Your task to perform on an android device: Open internet settings Image 0: 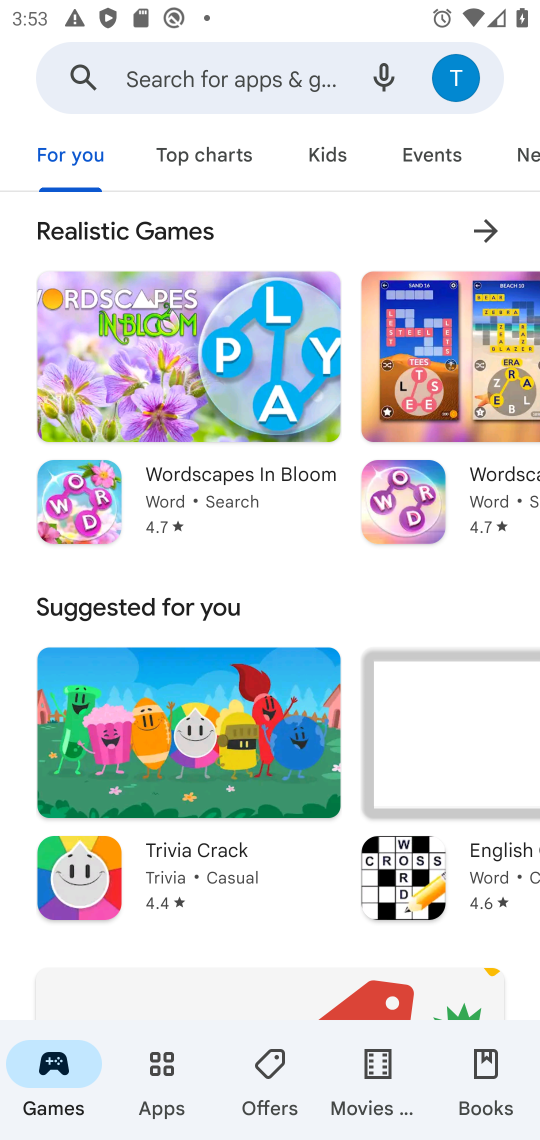
Step 0: press home button
Your task to perform on an android device: Open internet settings Image 1: 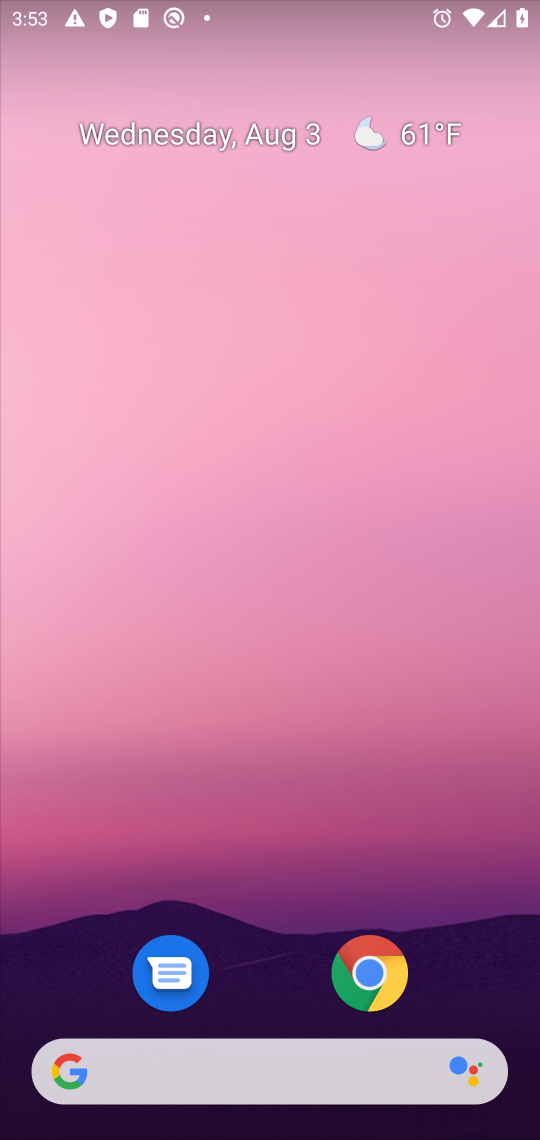
Step 1: drag from (297, 739) to (350, 61)
Your task to perform on an android device: Open internet settings Image 2: 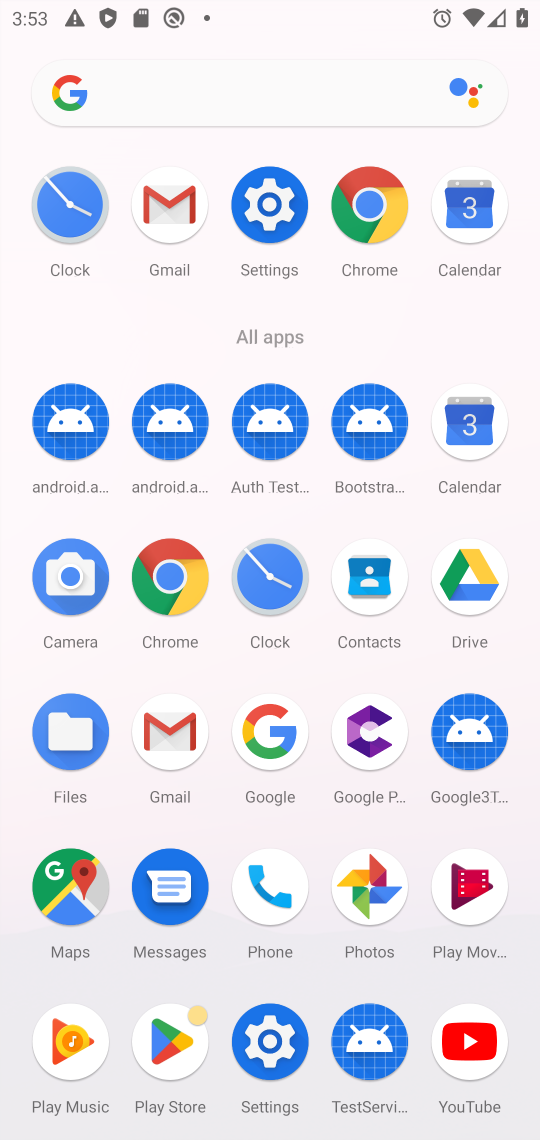
Step 2: click (274, 208)
Your task to perform on an android device: Open internet settings Image 3: 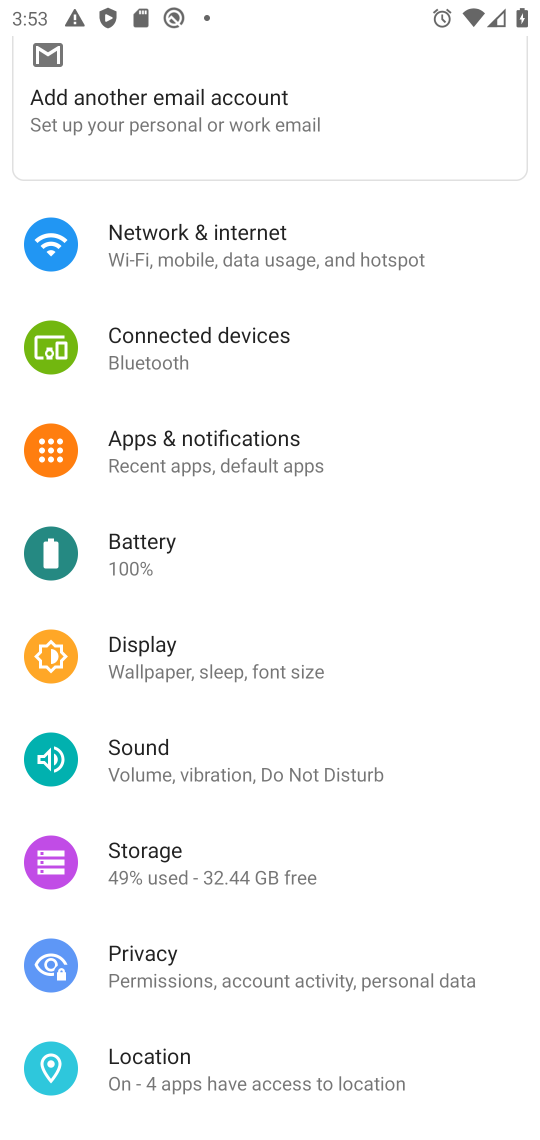
Step 3: click (274, 239)
Your task to perform on an android device: Open internet settings Image 4: 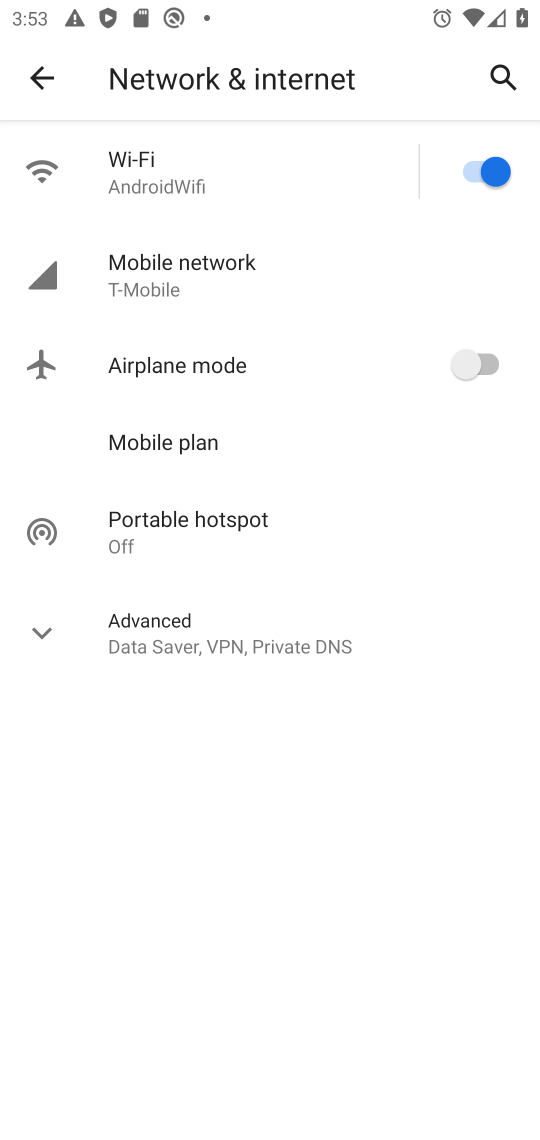
Step 4: task complete